Your task to perform on an android device: Add "energizer triple a" to the cart on ebay.com Image 0: 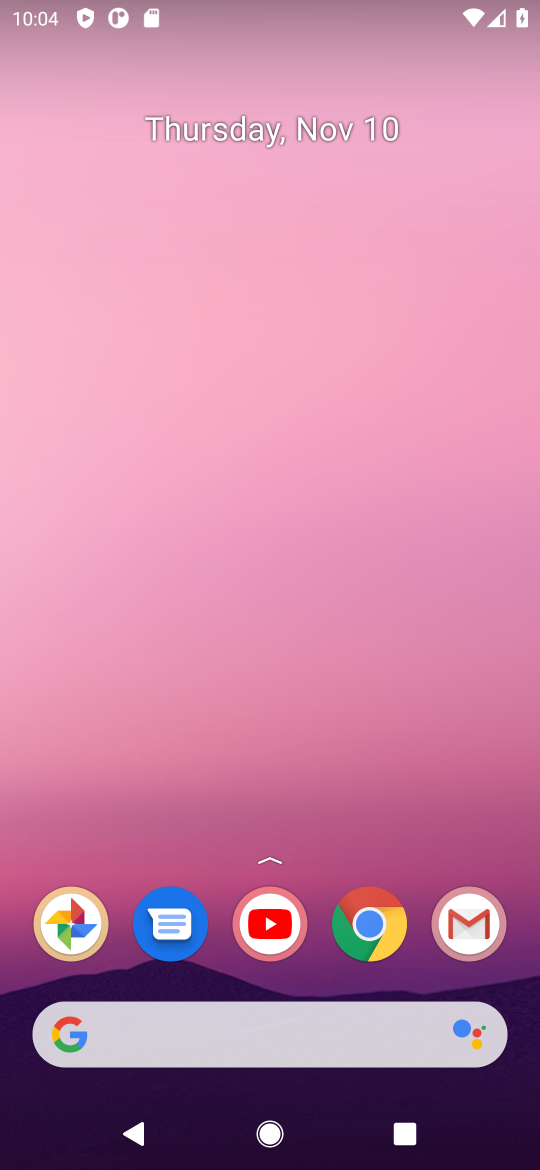
Step 0: click (366, 931)
Your task to perform on an android device: Add "energizer triple a" to the cart on ebay.com Image 1: 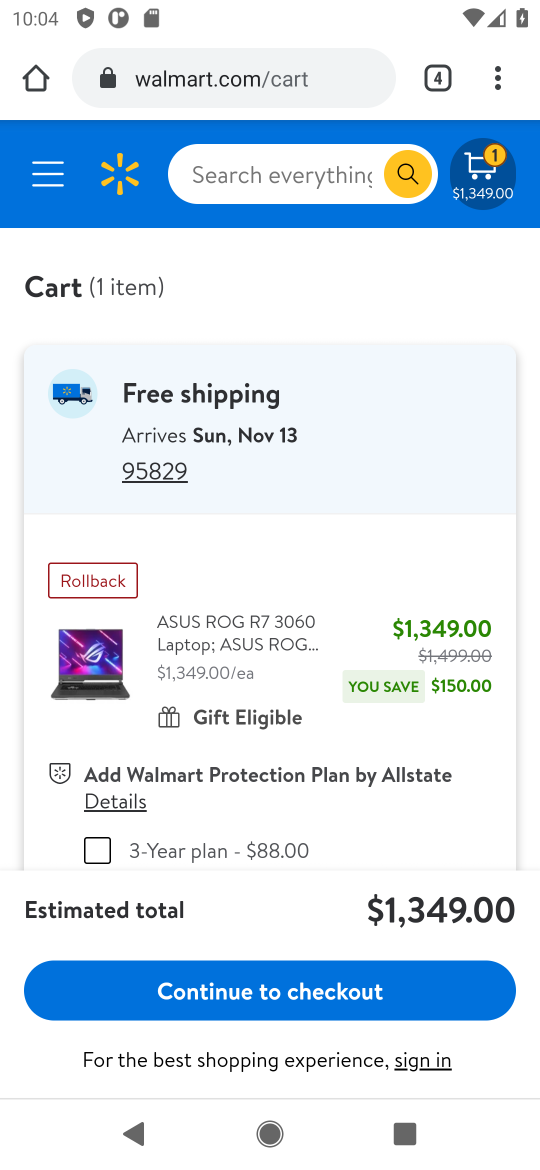
Step 1: click (186, 82)
Your task to perform on an android device: Add "energizer triple a" to the cart on ebay.com Image 2: 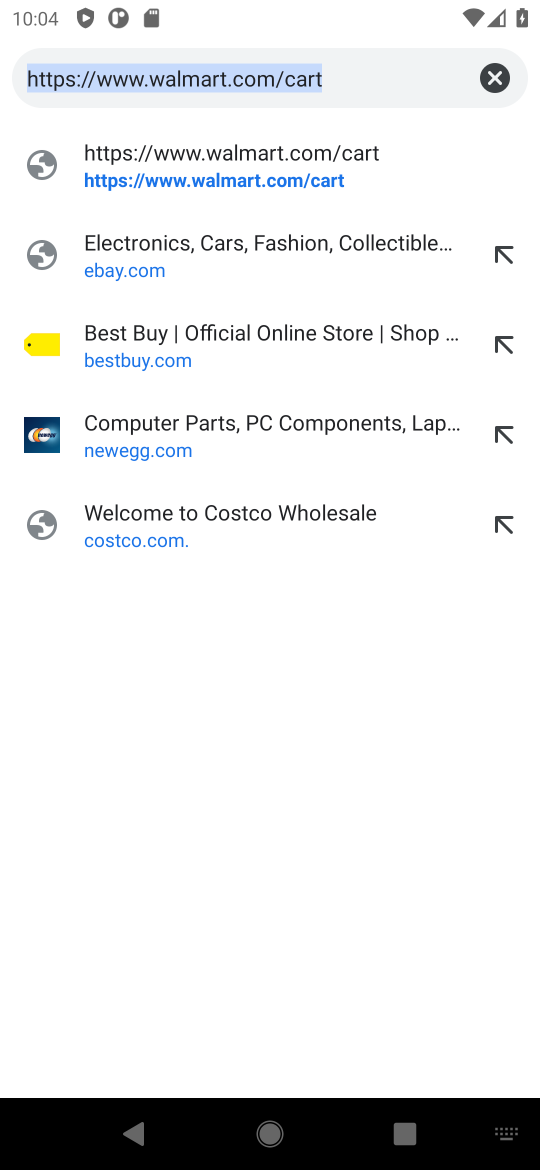
Step 2: click (124, 256)
Your task to perform on an android device: Add "energizer triple a" to the cart on ebay.com Image 3: 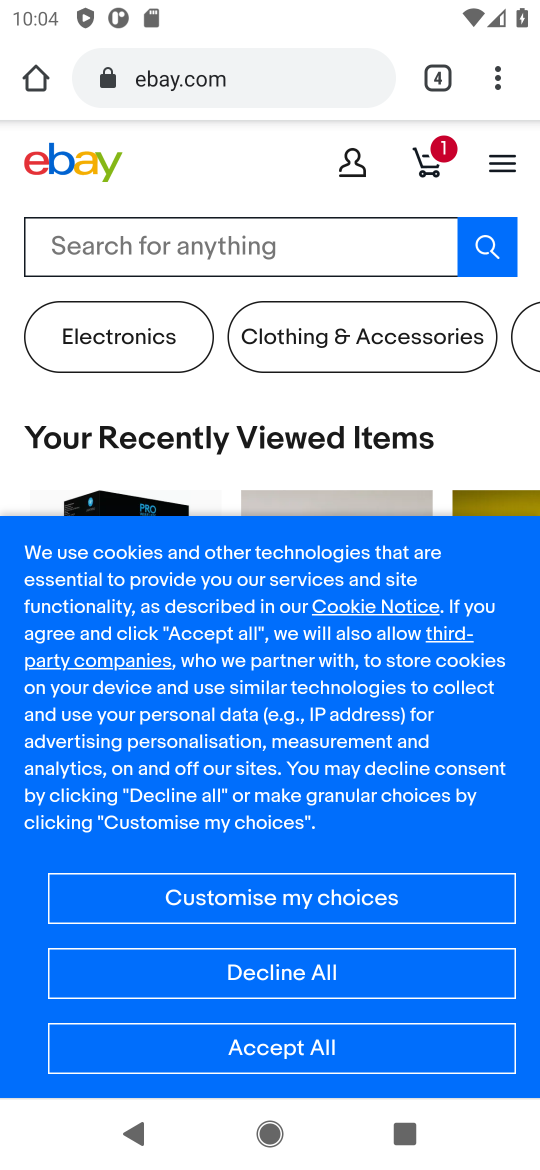
Step 3: click (155, 261)
Your task to perform on an android device: Add "energizer triple a" to the cart on ebay.com Image 4: 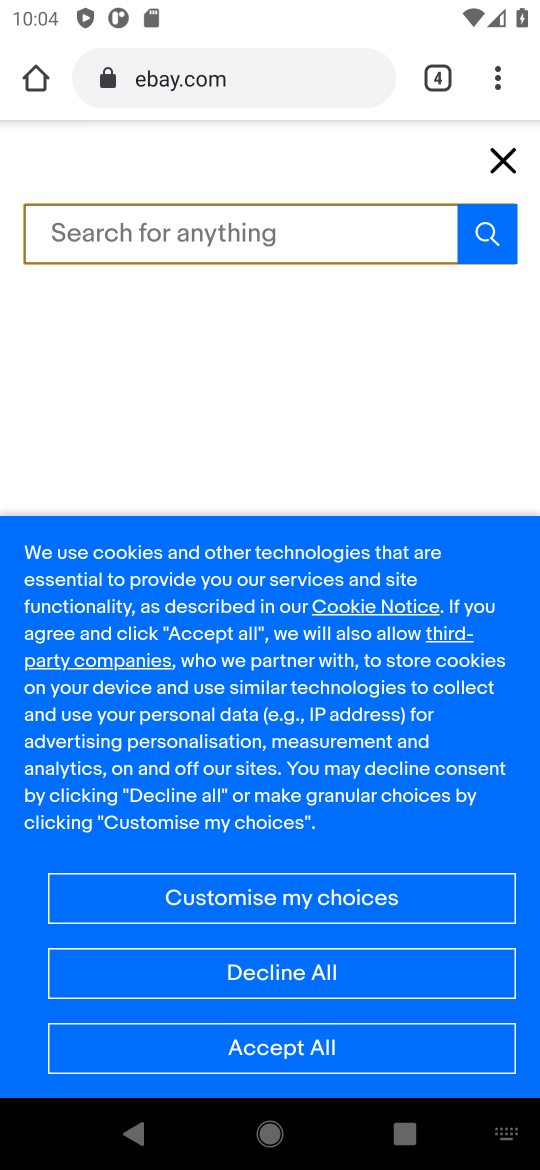
Step 4: type "energizer triple a"
Your task to perform on an android device: Add "energizer triple a" to the cart on ebay.com Image 5: 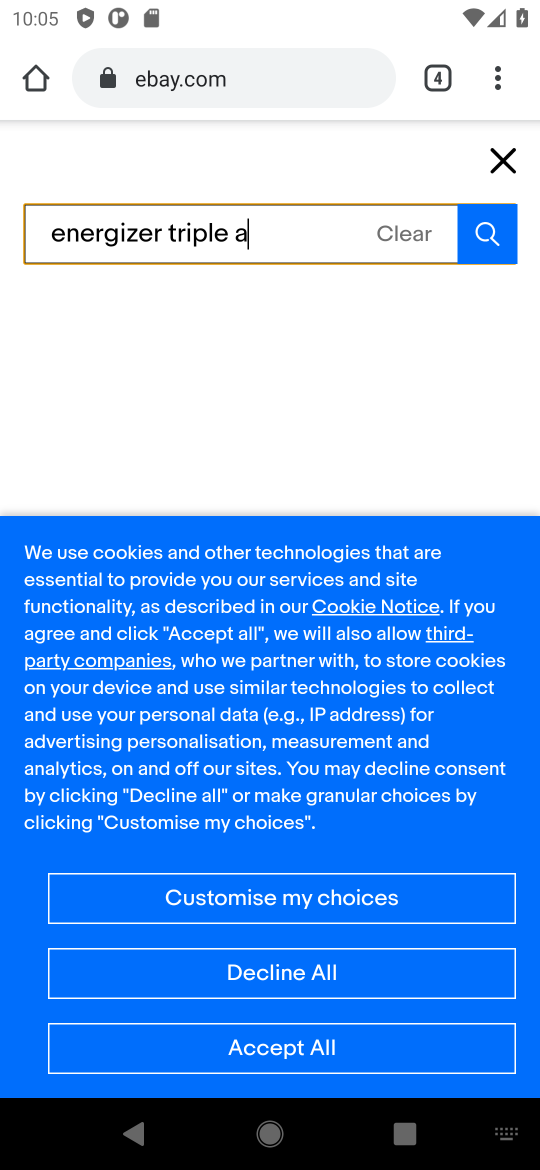
Step 5: click (487, 237)
Your task to perform on an android device: Add "energizer triple a" to the cart on ebay.com Image 6: 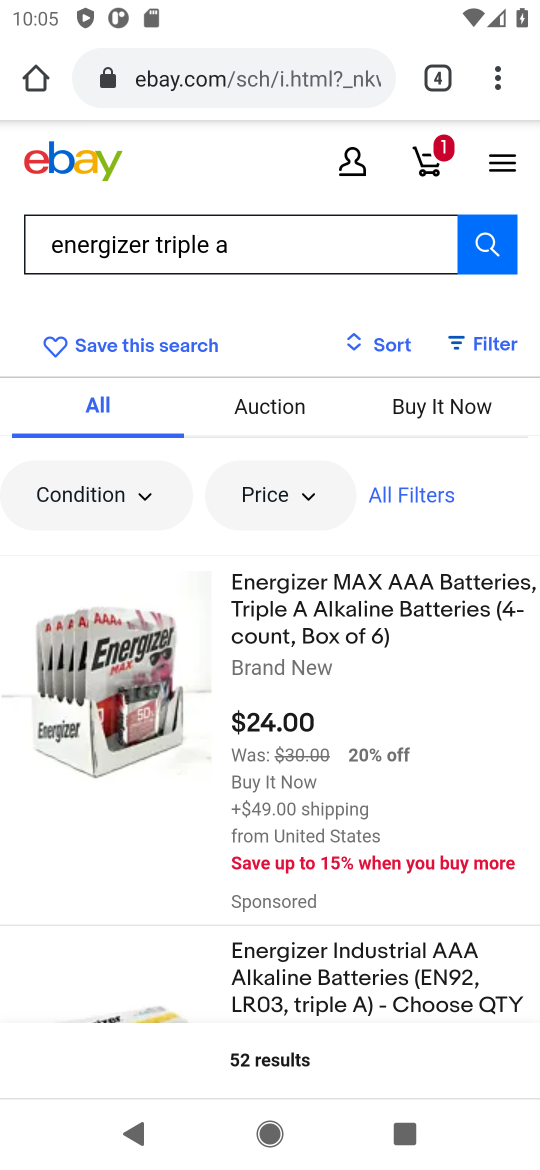
Step 6: click (166, 781)
Your task to perform on an android device: Add "energizer triple a" to the cart on ebay.com Image 7: 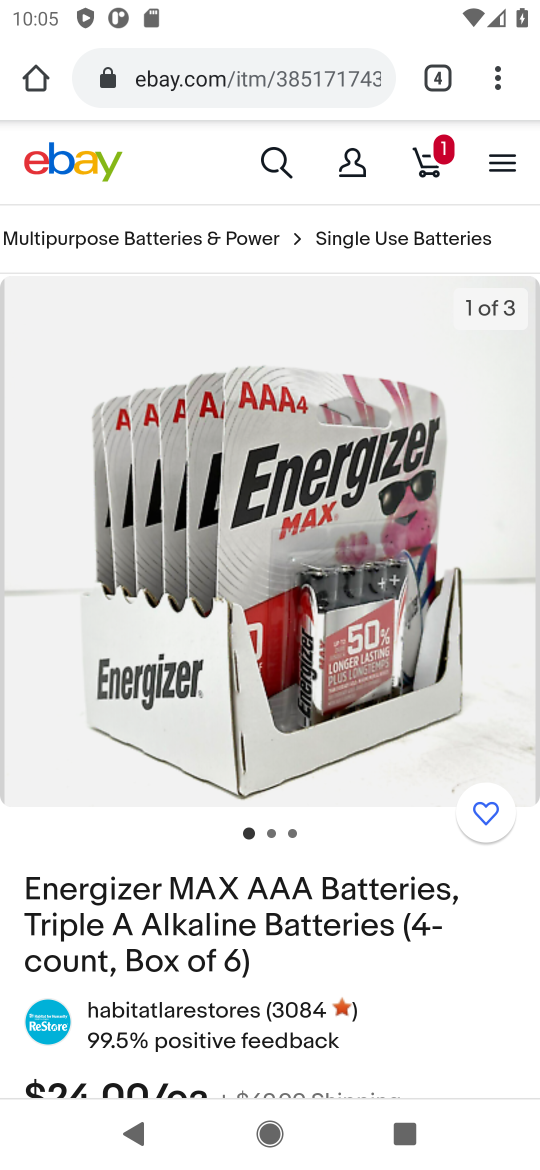
Step 7: drag from (204, 915) to (191, 591)
Your task to perform on an android device: Add "energizer triple a" to the cart on ebay.com Image 8: 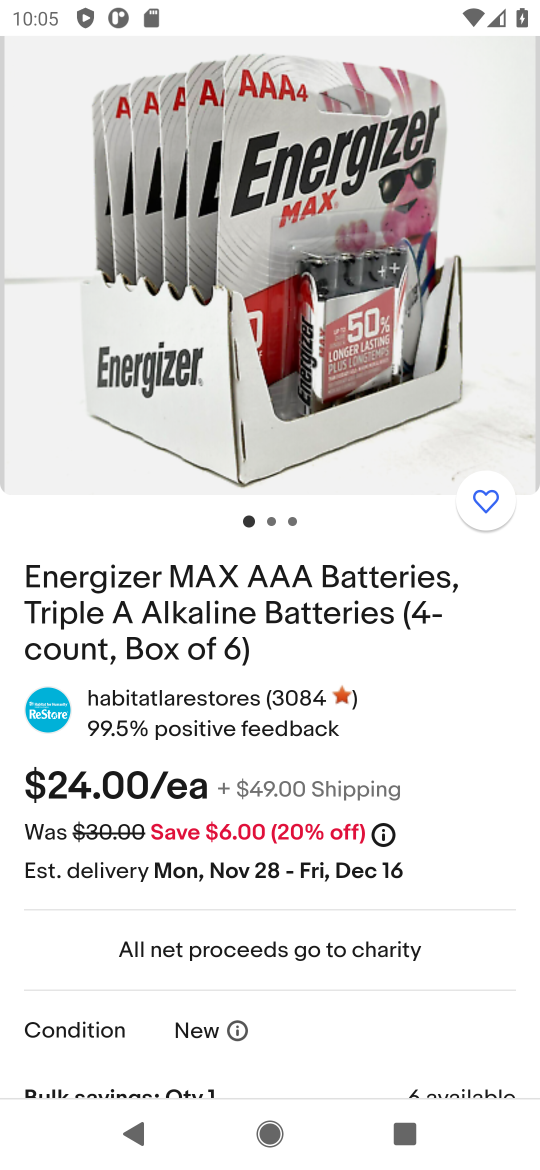
Step 8: drag from (213, 842) to (218, 556)
Your task to perform on an android device: Add "energizer triple a" to the cart on ebay.com Image 9: 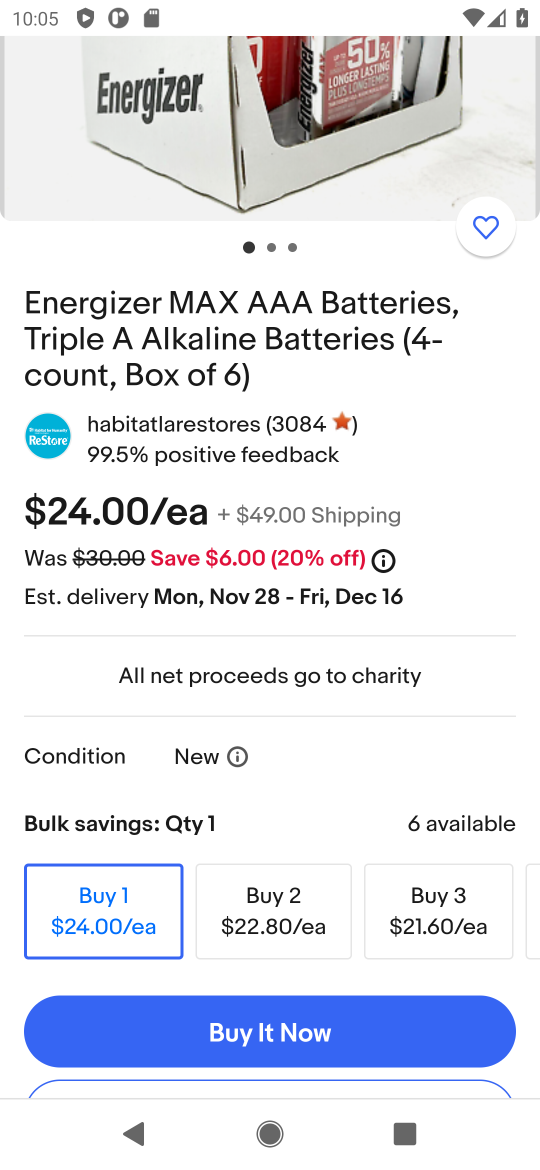
Step 9: drag from (221, 848) to (230, 463)
Your task to perform on an android device: Add "energizer triple a" to the cart on ebay.com Image 10: 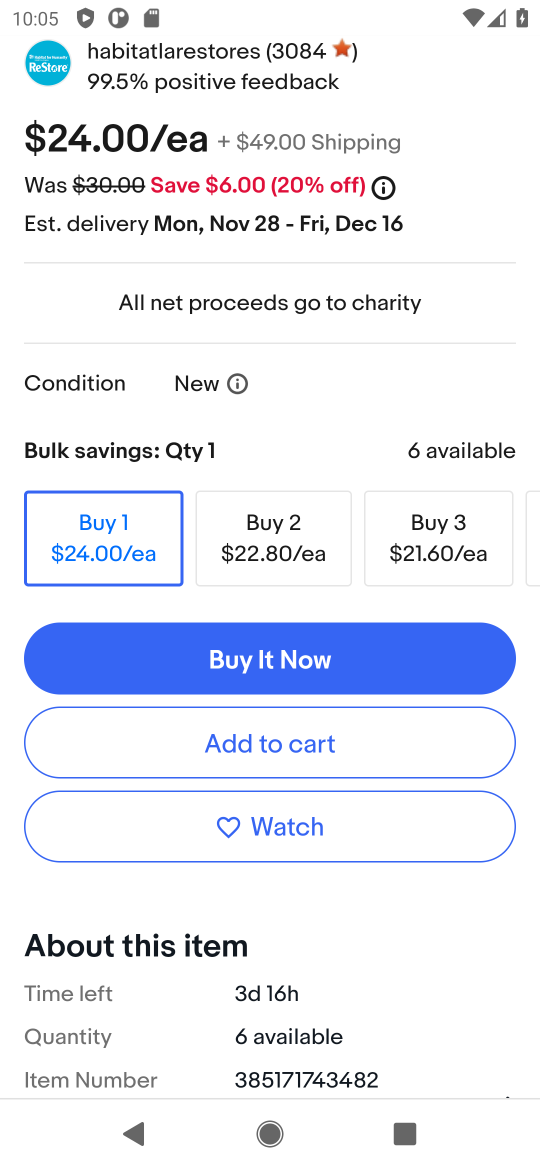
Step 10: click (202, 740)
Your task to perform on an android device: Add "energizer triple a" to the cart on ebay.com Image 11: 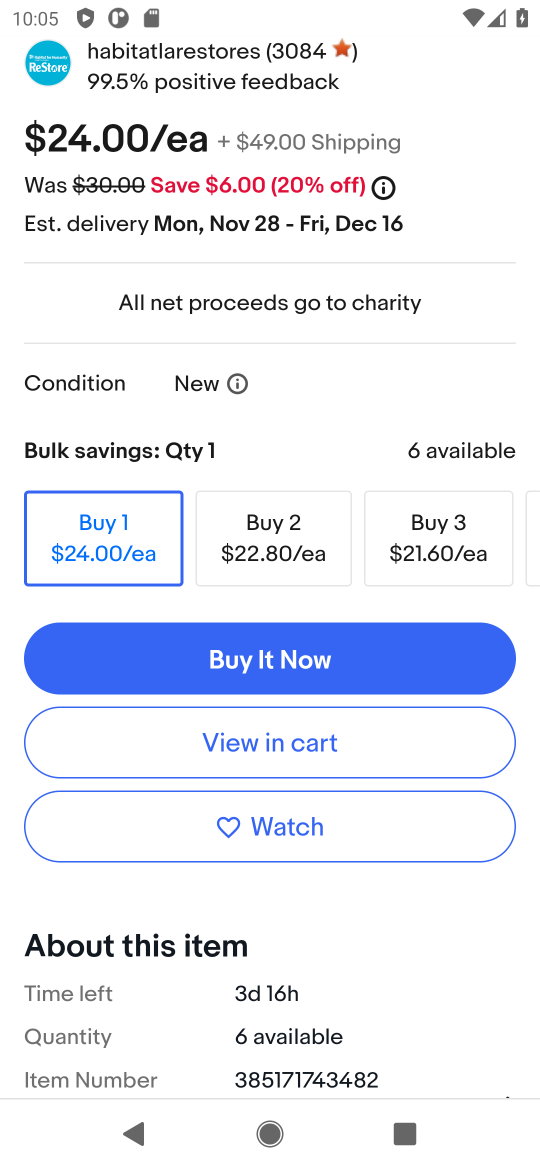
Step 11: task complete